Your task to perform on an android device: toggle priority inbox in the gmail app Image 0: 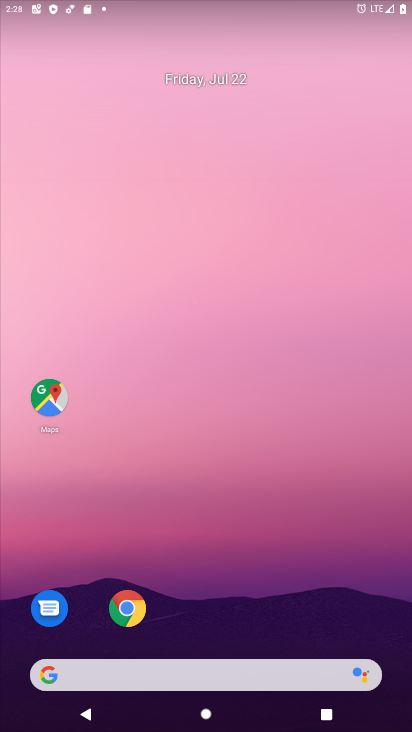
Step 0: drag from (403, 692) to (278, 173)
Your task to perform on an android device: toggle priority inbox in the gmail app Image 1: 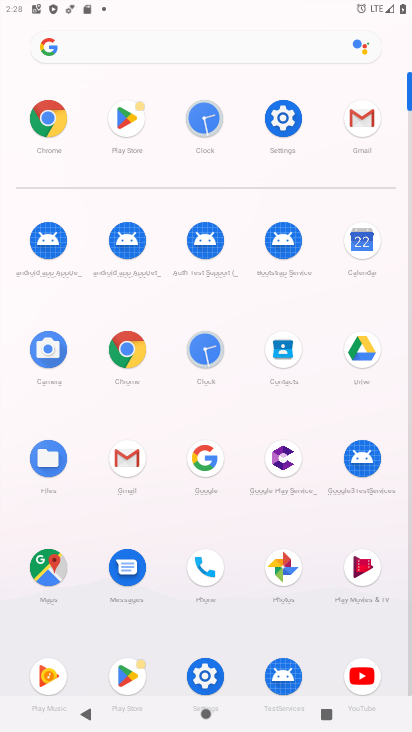
Step 1: click (351, 120)
Your task to perform on an android device: toggle priority inbox in the gmail app Image 2: 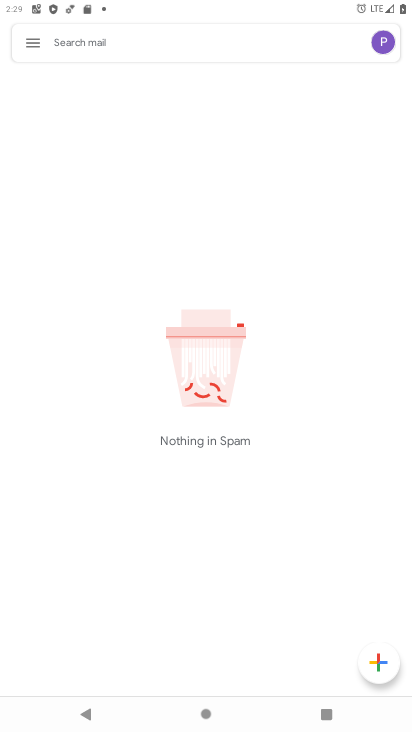
Step 2: click (28, 36)
Your task to perform on an android device: toggle priority inbox in the gmail app Image 3: 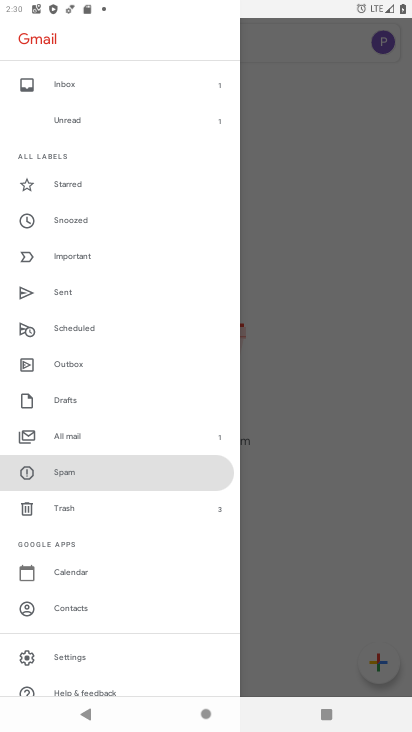
Step 3: click (64, 659)
Your task to perform on an android device: toggle priority inbox in the gmail app Image 4: 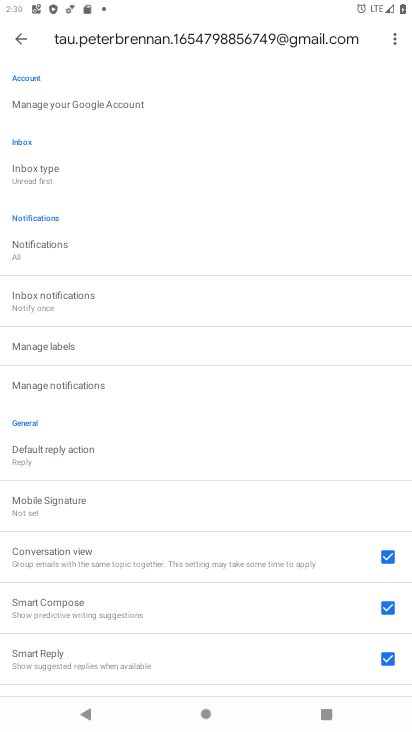
Step 4: click (40, 173)
Your task to perform on an android device: toggle priority inbox in the gmail app Image 5: 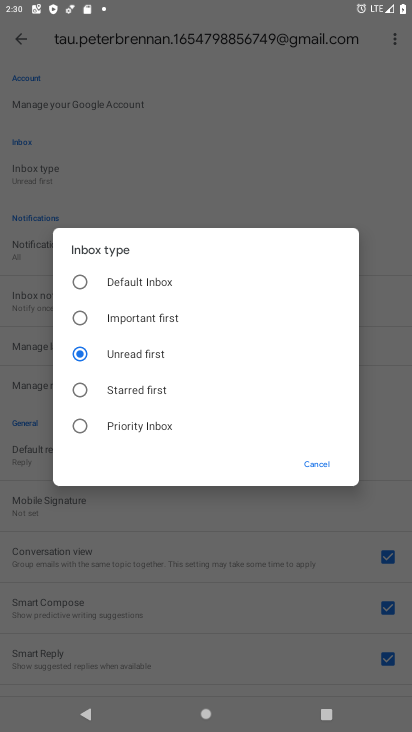
Step 5: click (78, 425)
Your task to perform on an android device: toggle priority inbox in the gmail app Image 6: 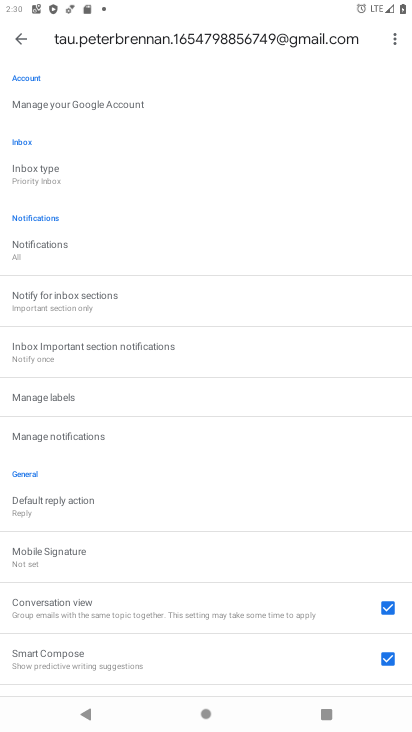
Step 6: task complete